Your task to perform on an android device: check battery use Image 0: 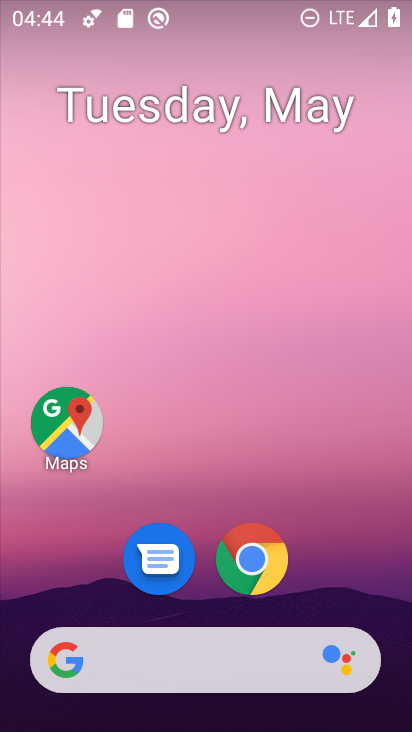
Step 0: drag from (191, 716) to (200, 107)
Your task to perform on an android device: check battery use Image 1: 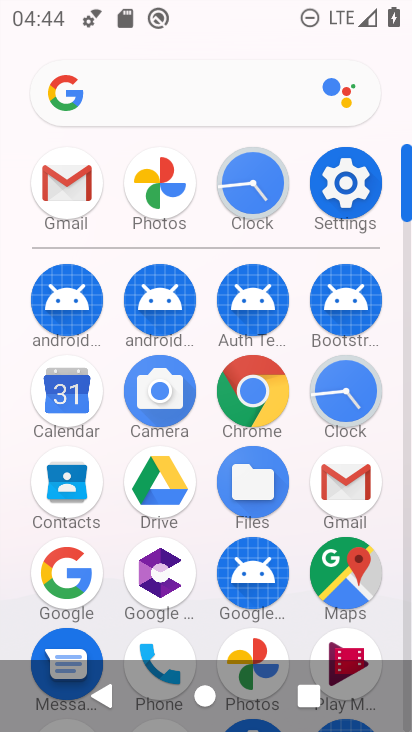
Step 1: click (346, 184)
Your task to perform on an android device: check battery use Image 2: 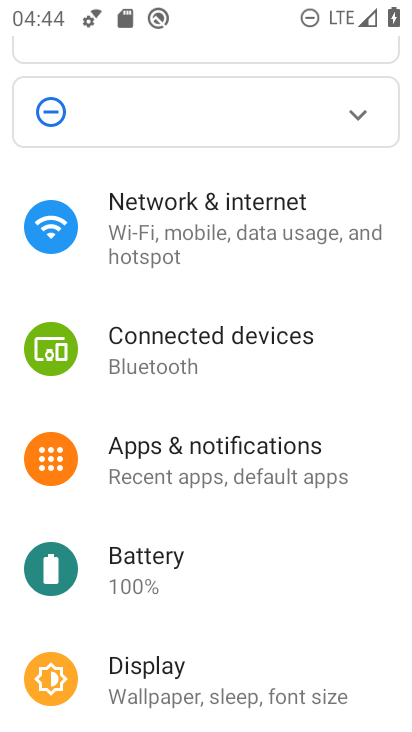
Step 2: click (138, 560)
Your task to perform on an android device: check battery use Image 3: 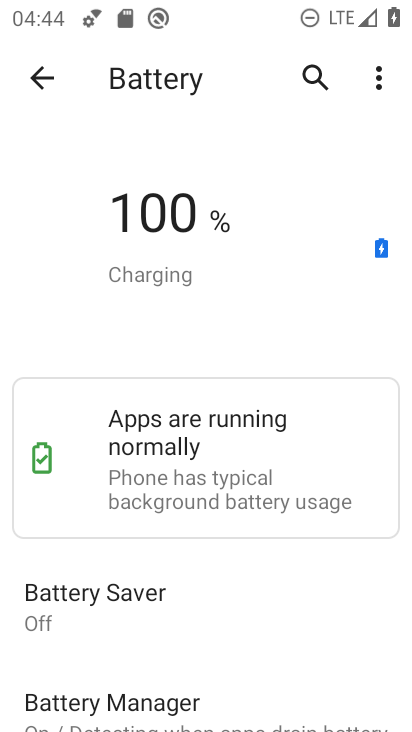
Step 3: click (377, 84)
Your task to perform on an android device: check battery use Image 4: 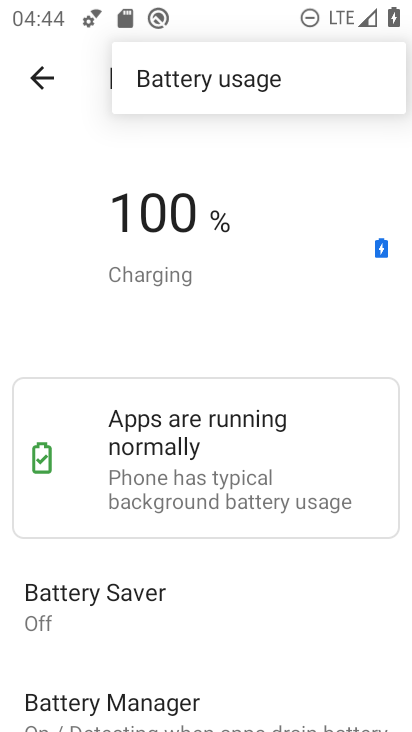
Step 4: click (206, 81)
Your task to perform on an android device: check battery use Image 5: 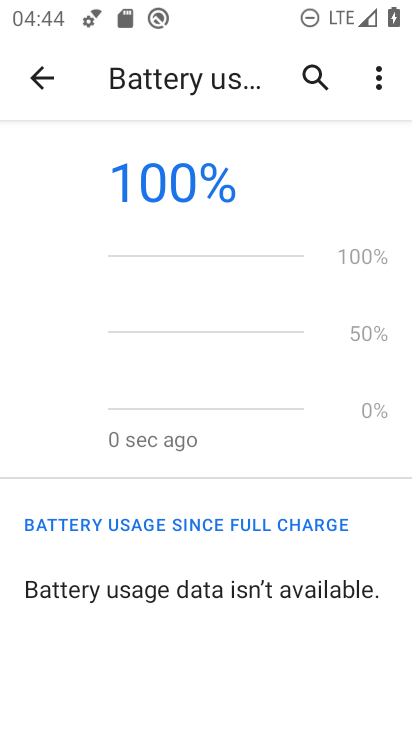
Step 5: task complete